Your task to perform on an android device: turn on the 12-hour format for clock Image 0: 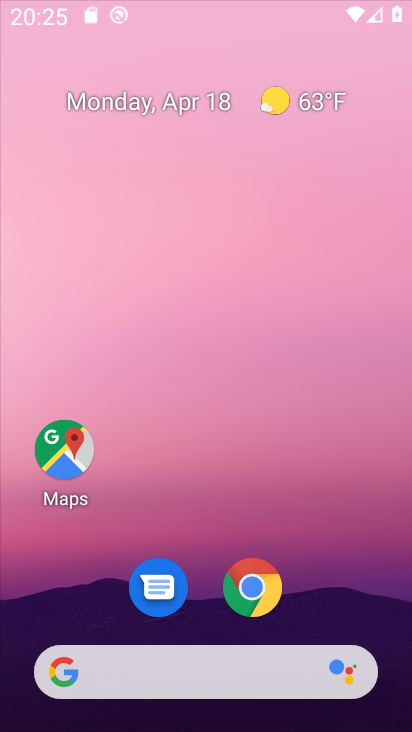
Step 0: click (356, 535)
Your task to perform on an android device: turn on the 12-hour format for clock Image 1: 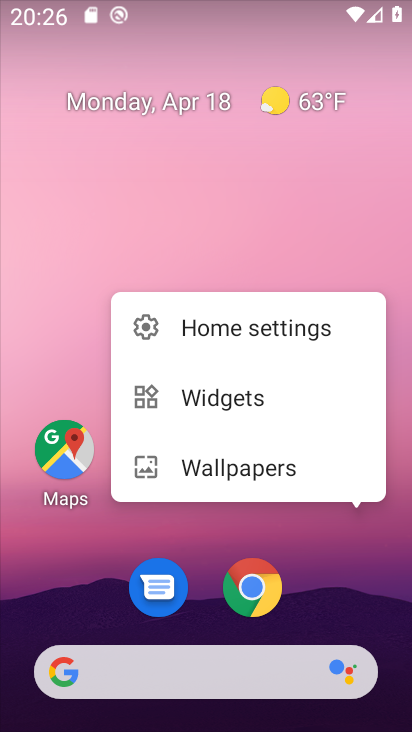
Step 1: click (141, 247)
Your task to perform on an android device: turn on the 12-hour format for clock Image 2: 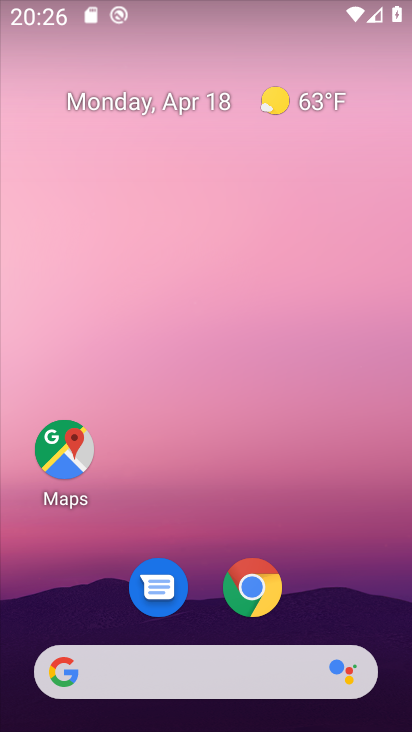
Step 2: drag from (328, 589) to (384, 167)
Your task to perform on an android device: turn on the 12-hour format for clock Image 3: 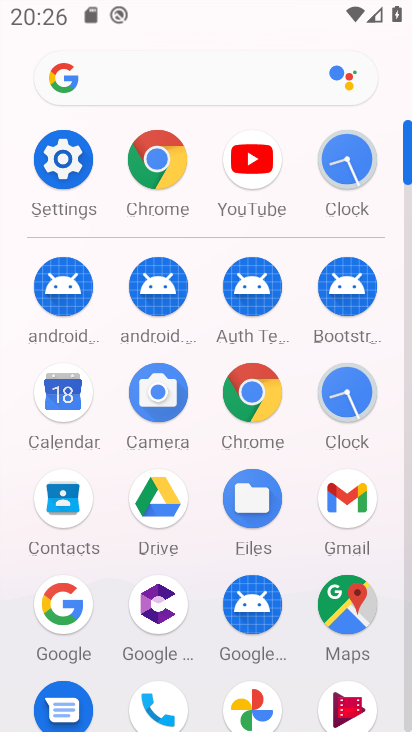
Step 3: click (339, 182)
Your task to perform on an android device: turn on the 12-hour format for clock Image 4: 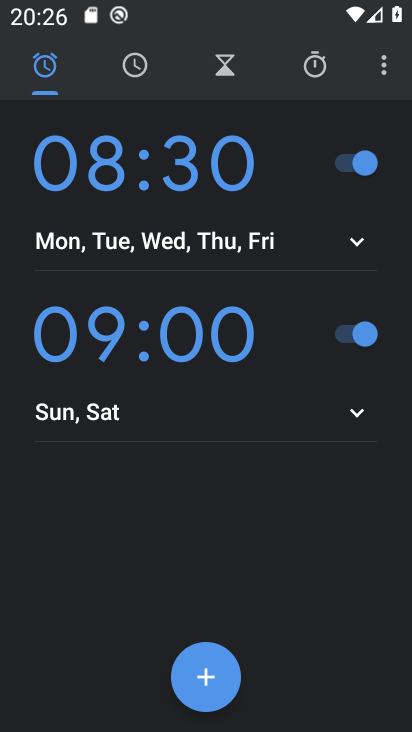
Step 4: click (396, 58)
Your task to perform on an android device: turn on the 12-hour format for clock Image 5: 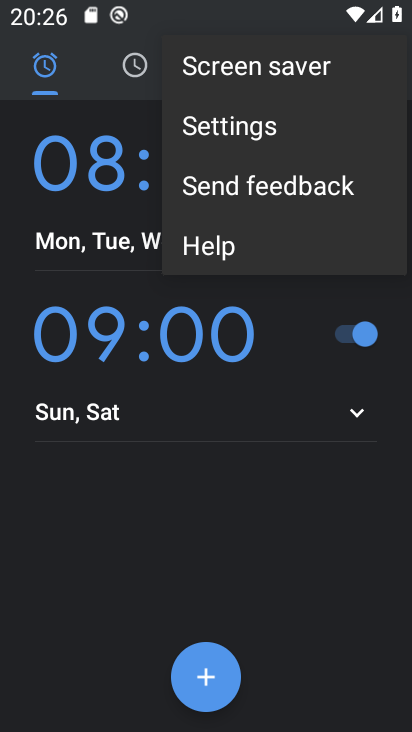
Step 5: click (322, 119)
Your task to perform on an android device: turn on the 12-hour format for clock Image 6: 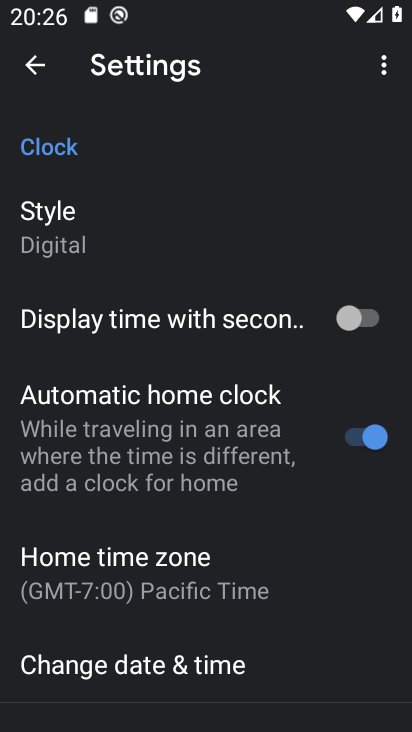
Step 6: drag from (117, 542) to (178, 348)
Your task to perform on an android device: turn on the 12-hour format for clock Image 7: 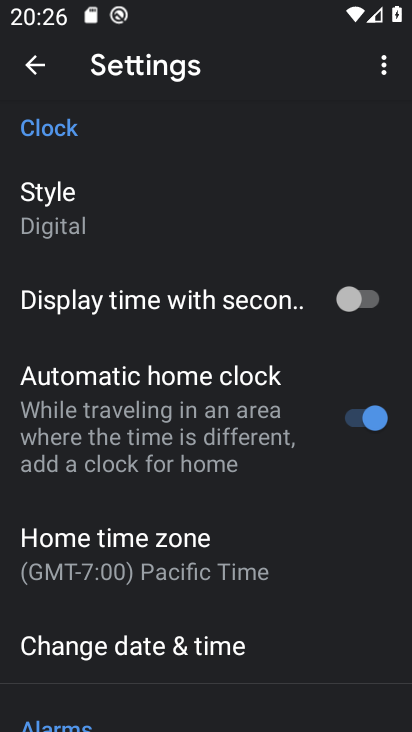
Step 7: drag from (118, 696) to (235, 232)
Your task to perform on an android device: turn on the 12-hour format for clock Image 8: 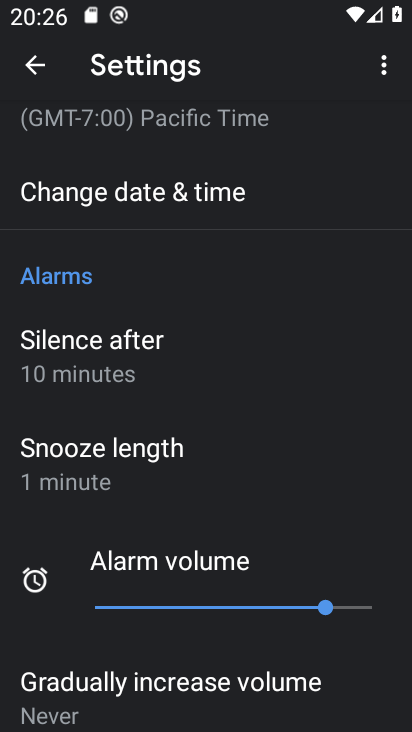
Step 8: drag from (163, 601) to (233, 286)
Your task to perform on an android device: turn on the 12-hour format for clock Image 9: 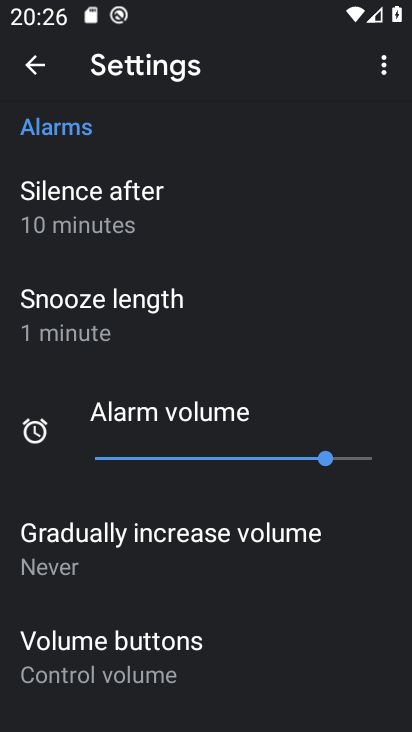
Step 9: drag from (195, 587) to (314, 60)
Your task to perform on an android device: turn on the 12-hour format for clock Image 10: 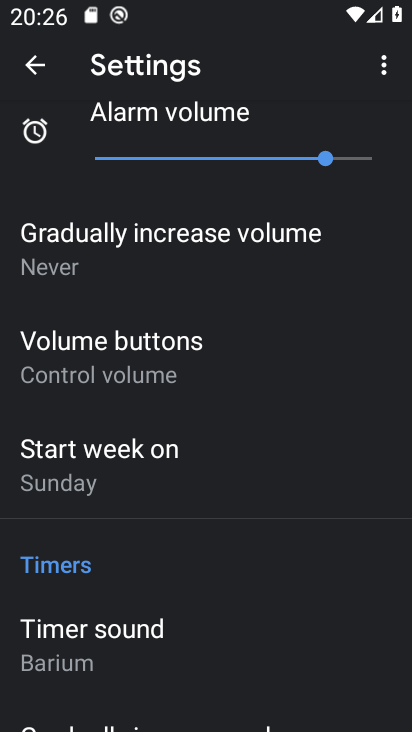
Step 10: drag from (197, 559) to (282, 288)
Your task to perform on an android device: turn on the 12-hour format for clock Image 11: 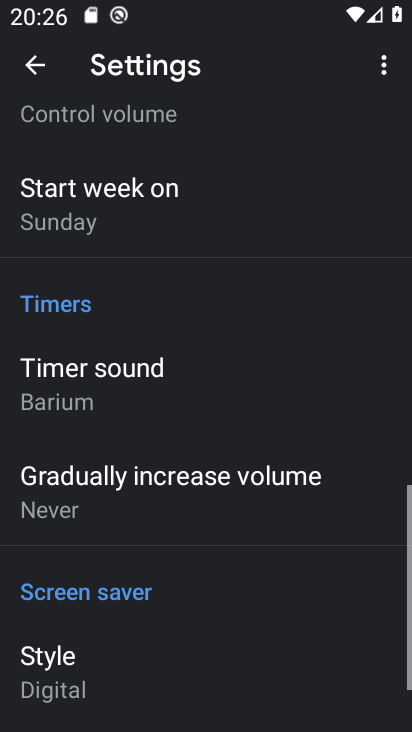
Step 11: click (282, 288)
Your task to perform on an android device: turn on the 12-hour format for clock Image 12: 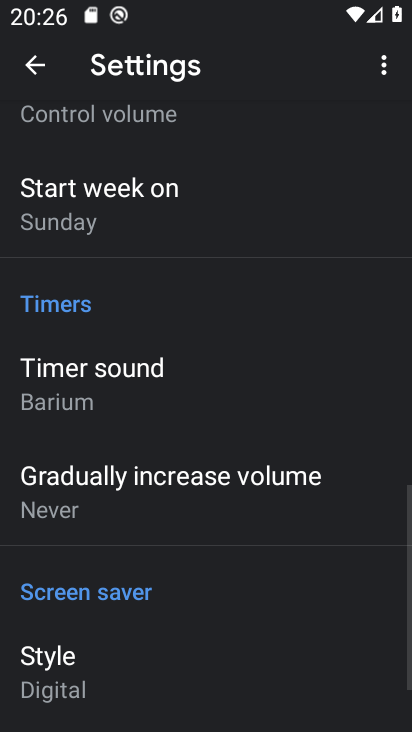
Step 12: drag from (282, 288) to (270, 685)
Your task to perform on an android device: turn on the 12-hour format for clock Image 13: 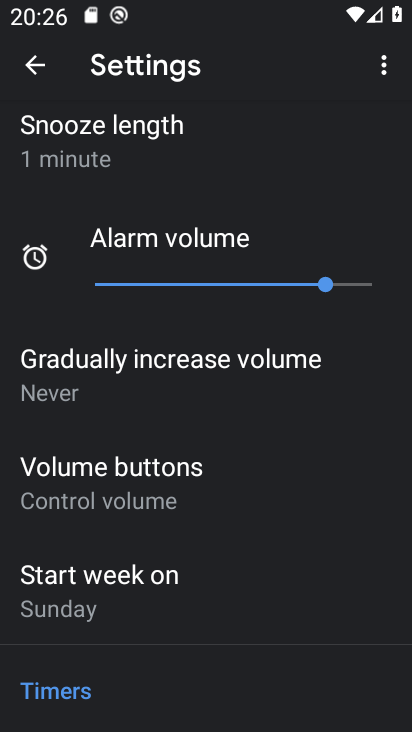
Step 13: drag from (296, 201) to (290, 500)
Your task to perform on an android device: turn on the 12-hour format for clock Image 14: 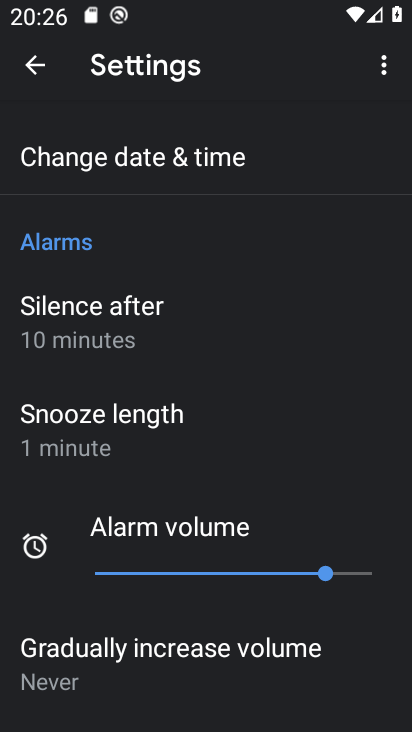
Step 14: click (262, 179)
Your task to perform on an android device: turn on the 12-hour format for clock Image 15: 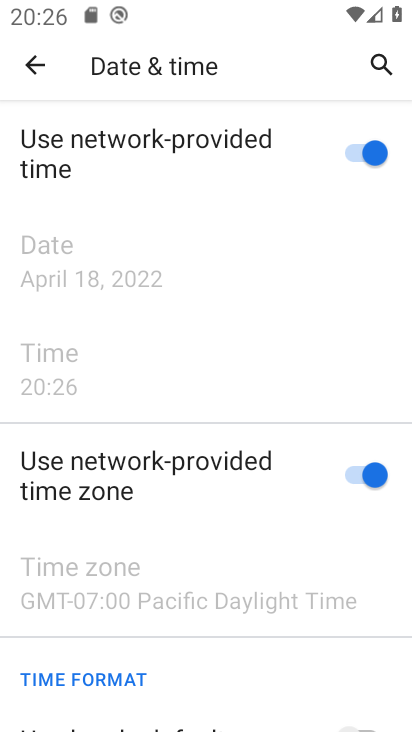
Step 15: drag from (188, 527) to (259, 230)
Your task to perform on an android device: turn on the 12-hour format for clock Image 16: 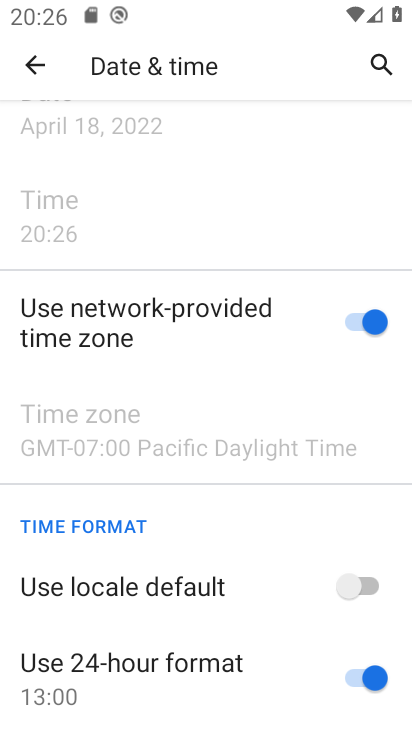
Step 16: click (344, 670)
Your task to perform on an android device: turn on the 12-hour format for clock Image 17: 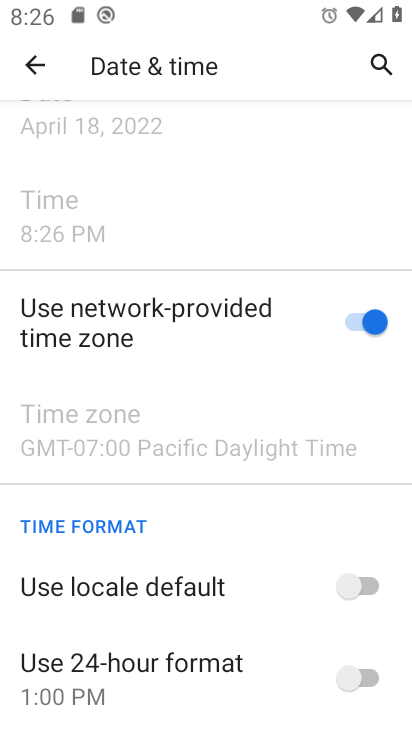
Step 17: task complete